Your task to perform on an android device: set the timer Image 0: 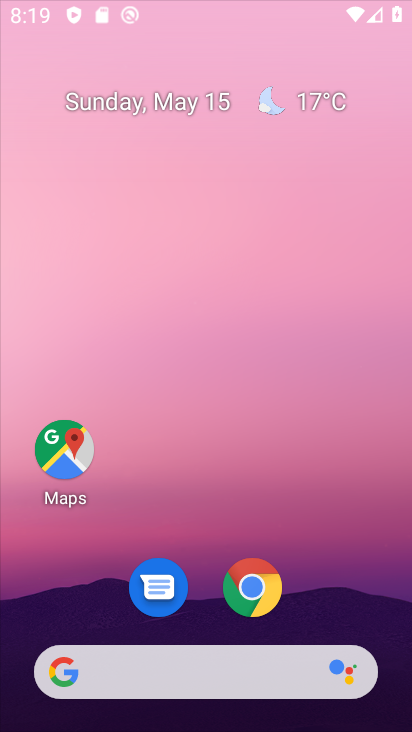
Step 0: drag from (217, 386) to (104, 43)
Your task to perform on an android device: set the timer Image 1: 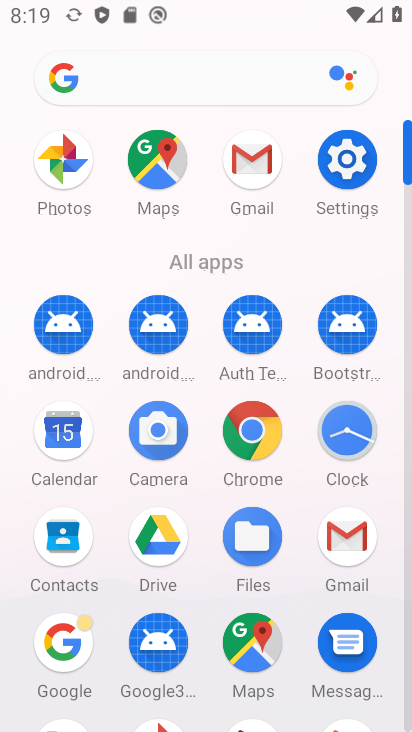
Step 1: click (342, 434)
Your task to perform on an android device: set the timer Image 2: 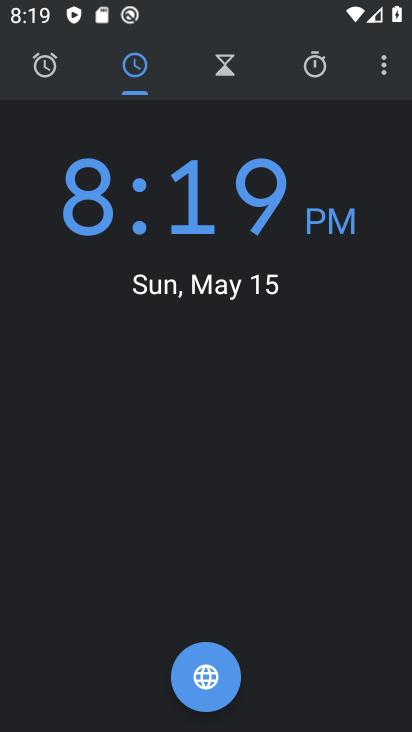
Step 2: click (225, 59)
Your task to perform on an android device: set the timer Image 3: 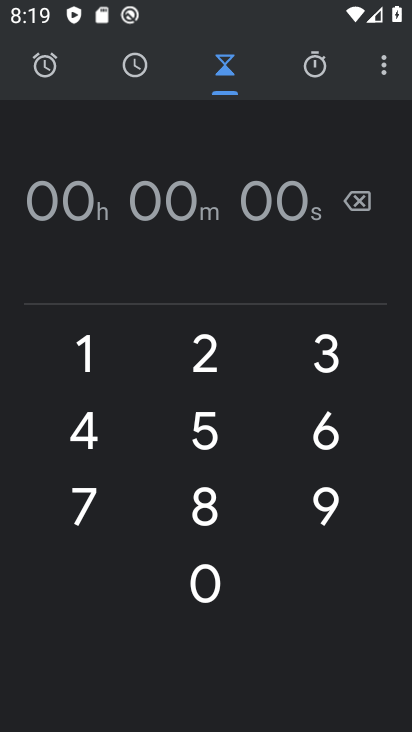
Step 3: click (214, 411)
Your task to perform on an android device: set the timer Image 4: 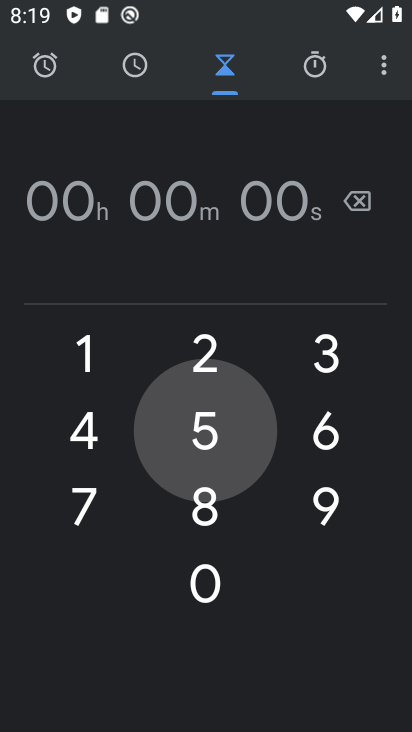
Step 4: click (206, 431)
Your task to perform on an android device: set the timer Image 5: 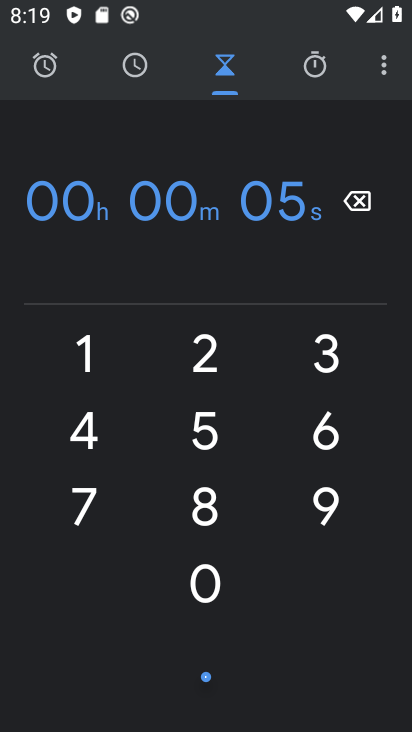
Step 5: click (205, 432)
Your task to perform on an android device: set the timer Image 6: 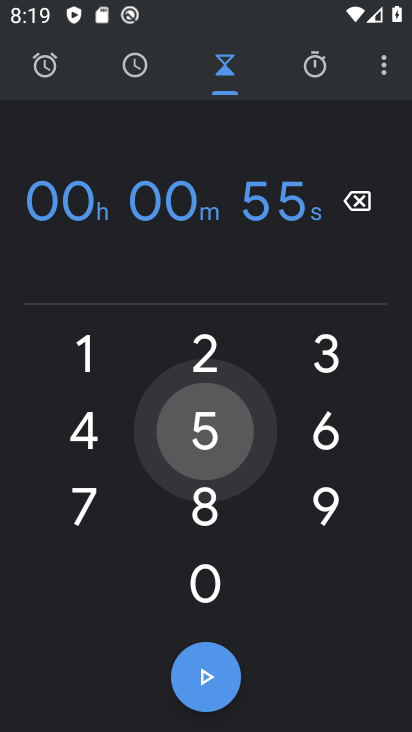
Step 6: click (200, 422)
Your task to perform on an android device: set the timer Image 7: 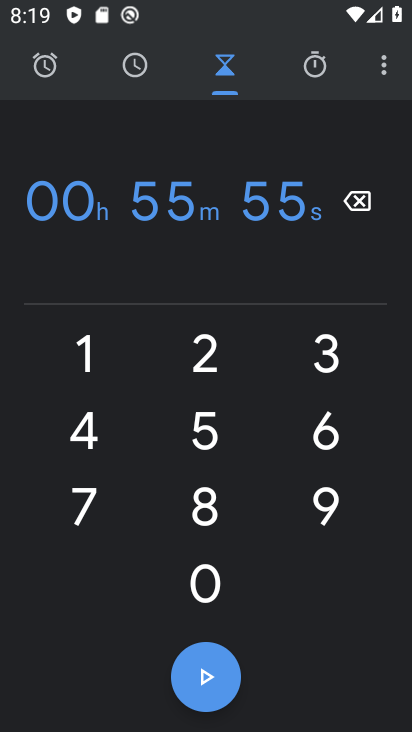
Step 7: click (202, 675)
Your task to perform on an android device: set the timer Image 8: 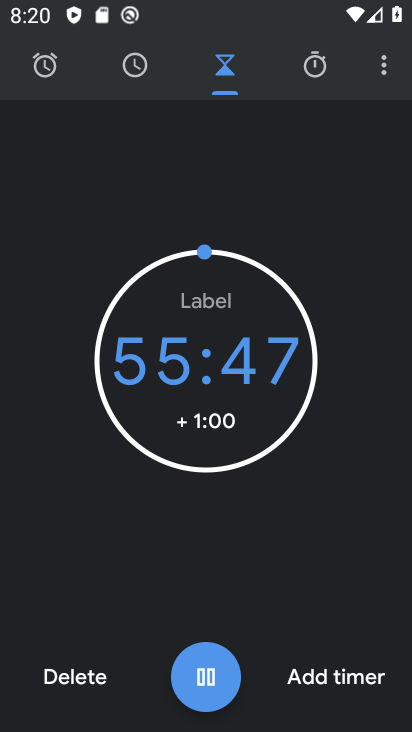
Step 8: click (205, 670)
Your task to perform on an android device: set the timer Image 9: 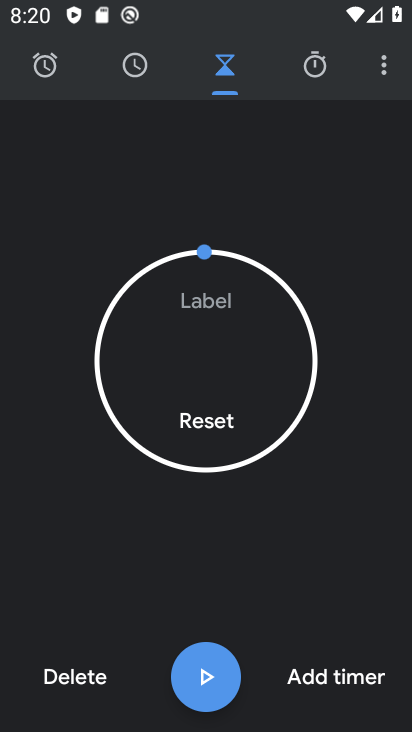
Step 9: task complete